Your task to perform on an android device: uninstall "Walmart Shopping & Grocery" Image 0: 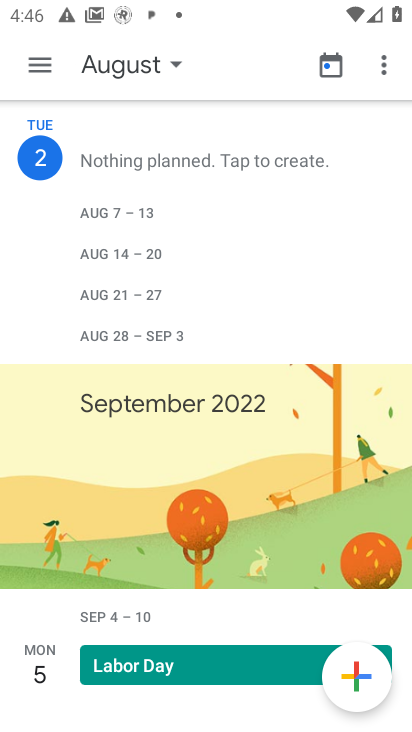
Step 0: press home button
Your task to perform on an android device: uninstall "Walmart Shopping & Grocery" Image 1: 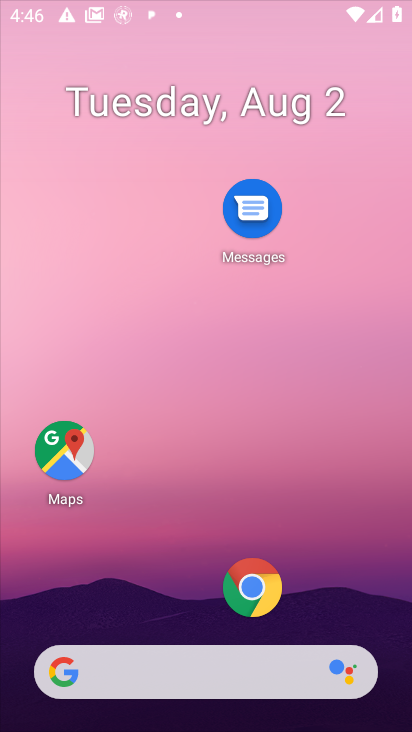
Step 1: drag from (181, 591) to (181, 182)
Your task to perform on an android device: uninstall "Walmart Shopping & Grocery" Image 2: 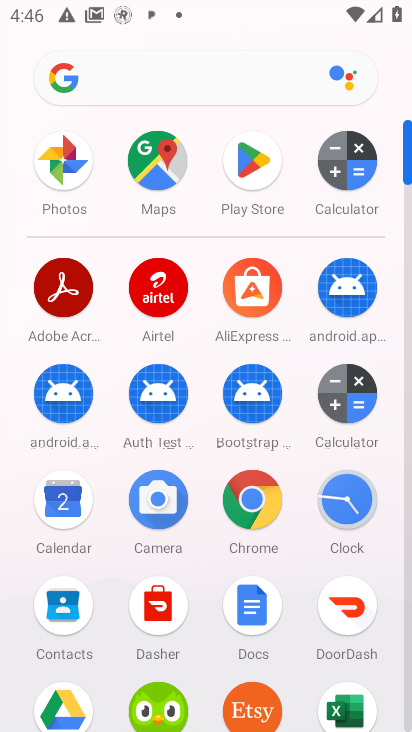
Step 2: click (235, 191)
Your task to perform on an android device: uninstall "Walmart Shopping & Grocery" Image 3: 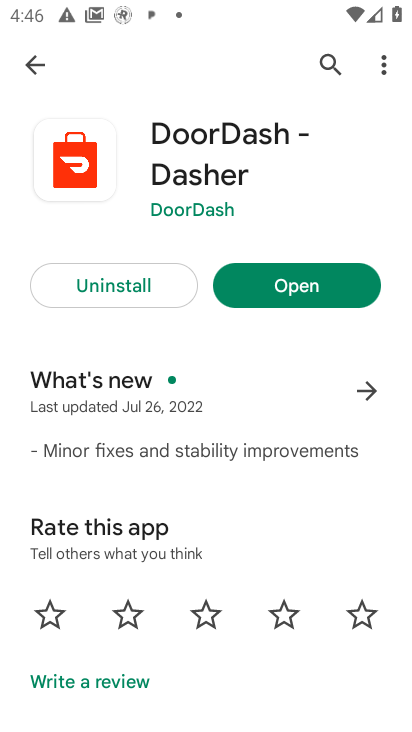
Step 3: click (319, 64)
Your task to perform on an android device: uninstall "Walmart Shopping & Grocery" Image 4: 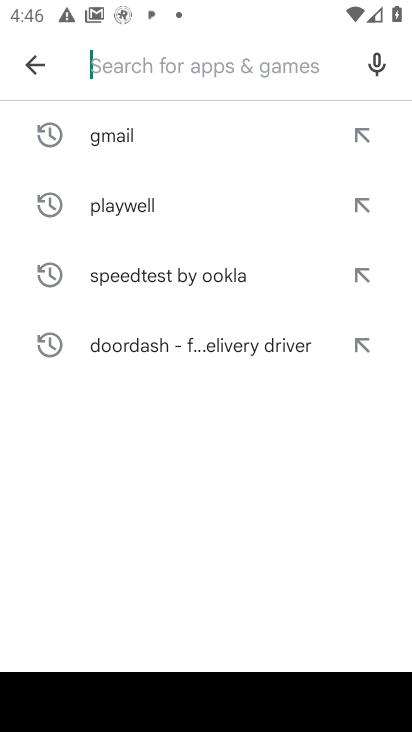
Step 4: type "Walmart Shopping & Grocery"
Your task to perform on an android device: uninstall "Walmart Shopping & Grocery" Image 5: 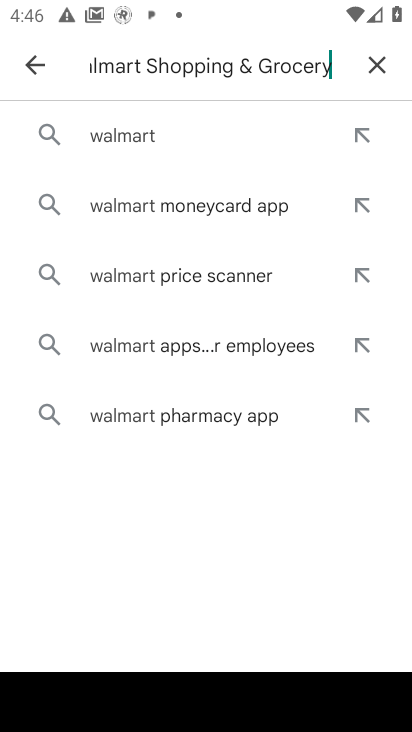
Step 5: type ""
Your task to perform on an android device: uninstall "Walmart Shopping & Grocery" Image 6: 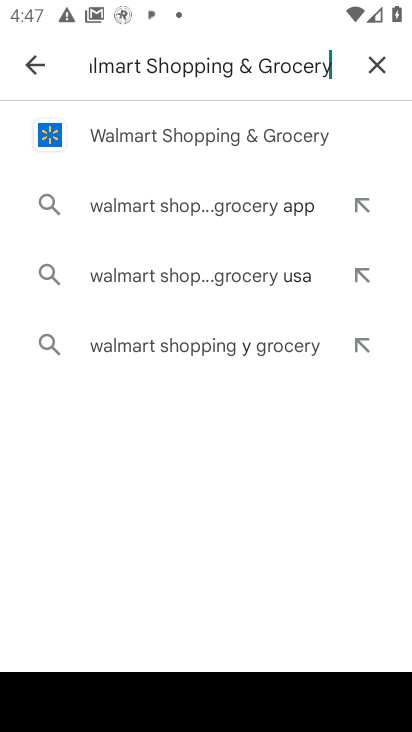
Step 6: click (162, 122)
Your task to perform on an android device: uninstall "Walmart Shopping & Grocery" Image 7: 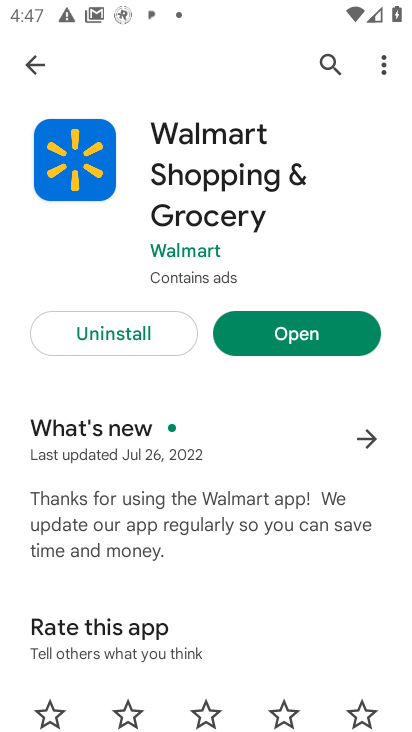
Step 7: click (122, 337)
Your task to perform on an android device: uninstall "Walmart Shopping & Grocery" Image 8: 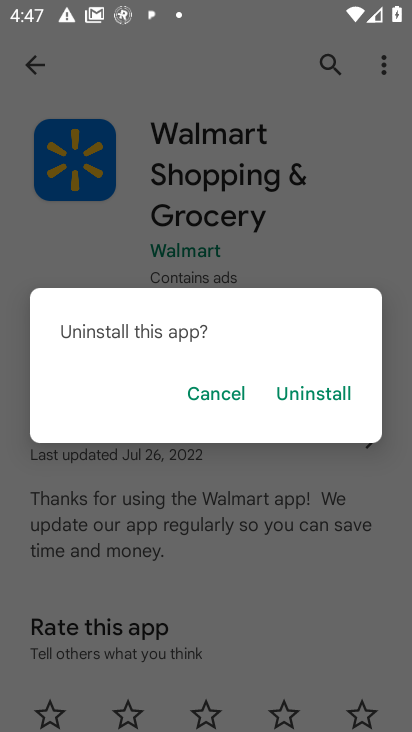
Step 8: click (332, 389)
Your task to perform on an android device: uninstall "Walmart Shopping & Grocery" Image 9: 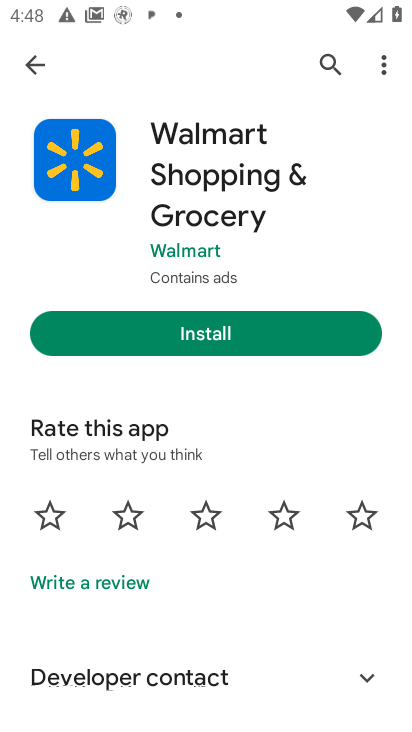
Step 9: task complete